Your task to perform on an android device: empty trash in the gmail app Image 0: 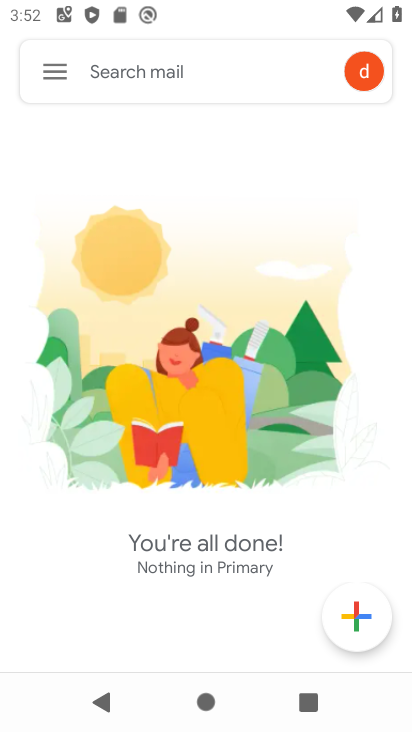
Step 0: click (53, 61)
Your task to perform on an android device: empty trash in the gmail app Image 1: 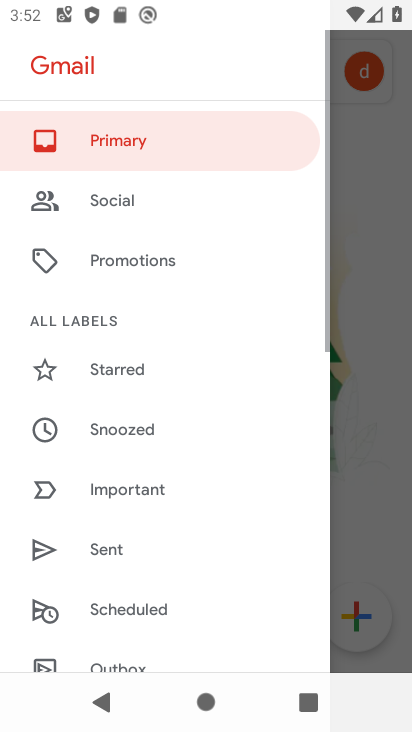
Step 1: drag from (132, 549) to (115, 103)
Your task to perform on an android device: empty trash in the gmail app Image 2: 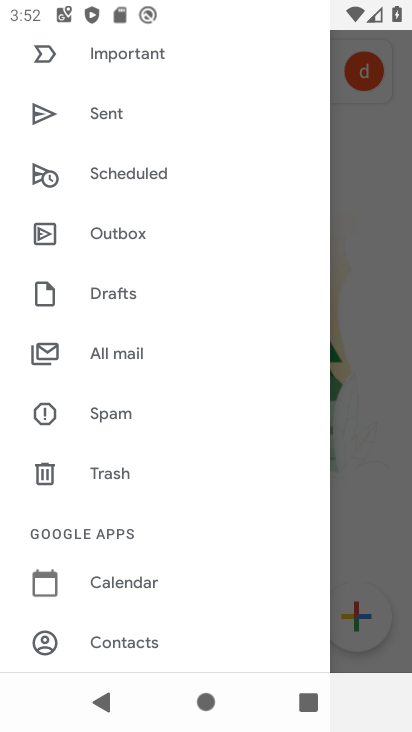
Step 2: click (112, 466)
Your task to perform on an android device: empty trash in the gmail app Image 3: 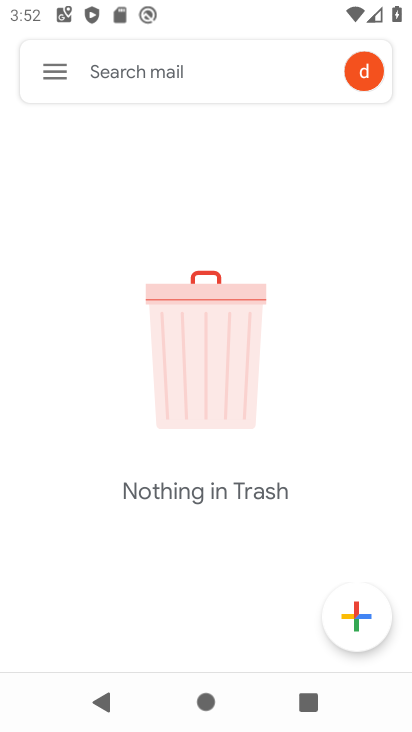
Step 3: task complete